Your task to perform on an android device: visit the assistant section in the google photos Image 0: 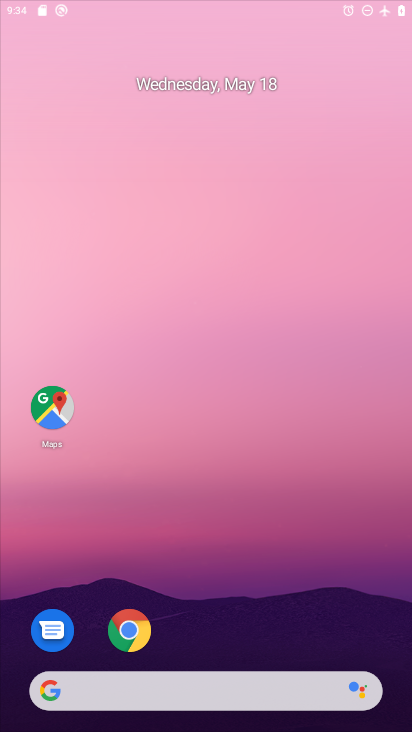
Step 0: click (196, 669)
Your task to perform on an android device: visit the assistant section in the google photos Image 1: 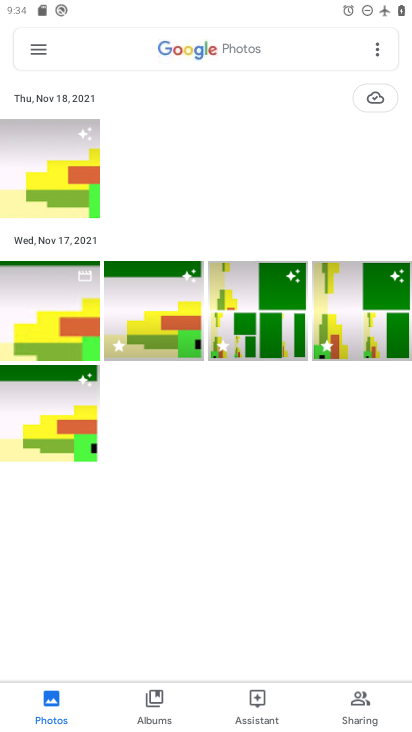
Step 1: press home button
Your task to perform on an android device: visit the assistant section in the google photos Image 2: 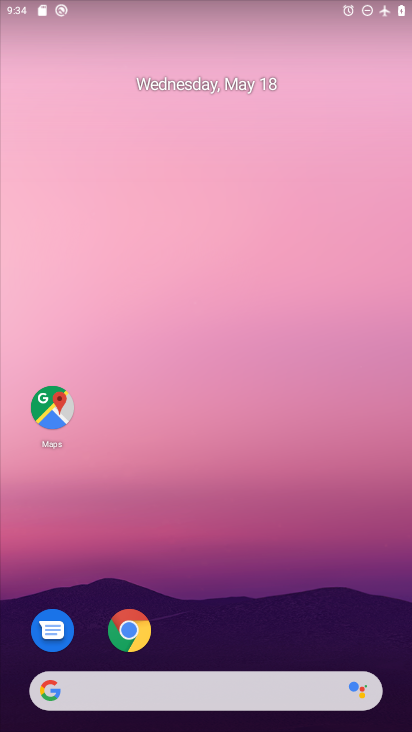
Step 2: drag from (204, 652) to (246, 129)
Your task to perform on an android device: visit the assistant section in the google photos Image 3: 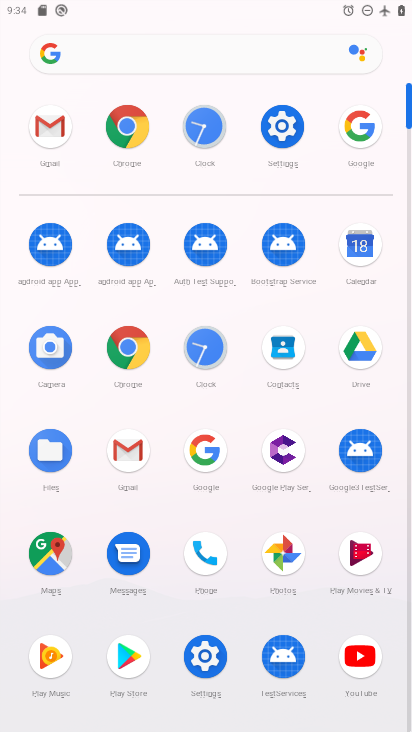
Step 3: click (268, 540)
Your task to perform on an android device: visit the assistant section in the google photos Image 4: 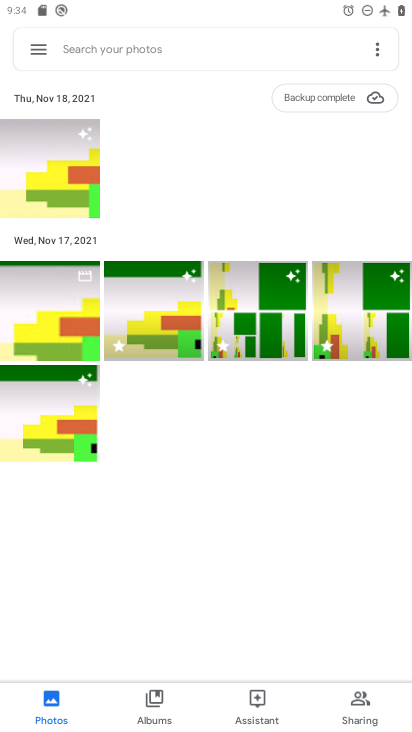
Step 4: click (241, 716)
Your task to perform on an android device: visit the assistant section in the google photos Image 5: 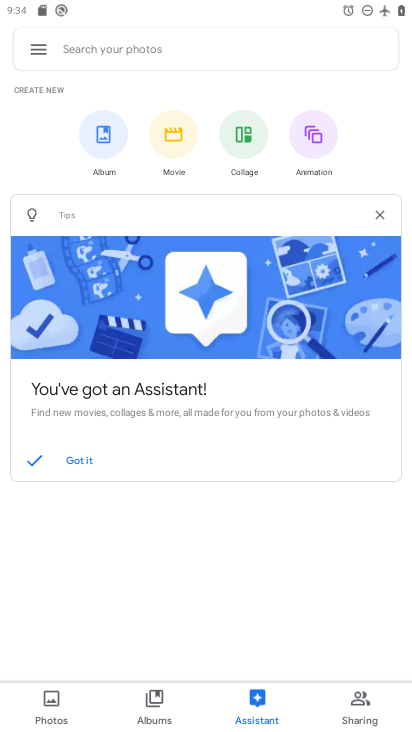
Step 5: task complete